Your task to perform on an android device: Search for pizza restaurants on Maps Image 0: 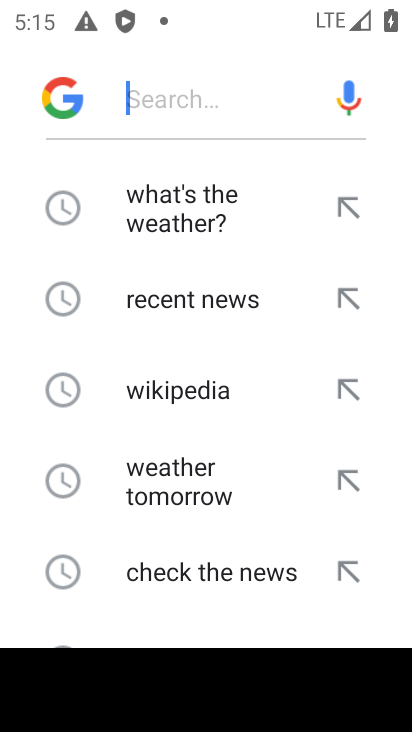
Step 0: press home button
Your task to perform on an android device: Search for pizza restaurants on Maps Image 1: 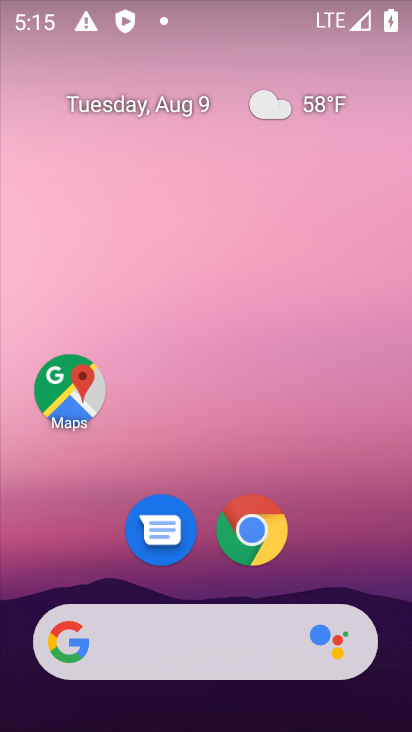
Step 1: click (71, 392)
Your task to perform on an android device: Search for pizza restaurants on Maps Image 2: 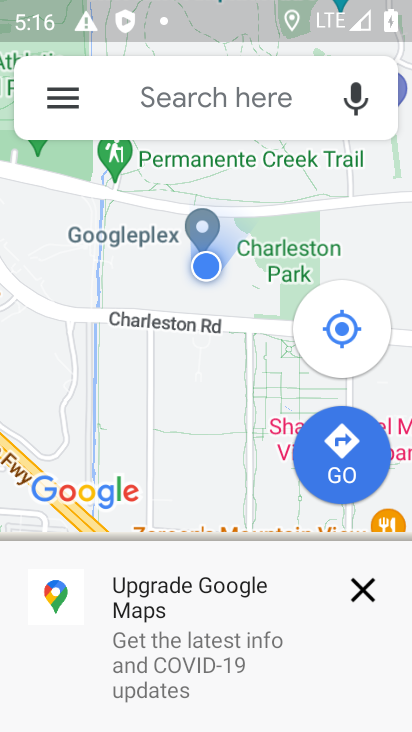
Step 2: click (184, 104)
Your task to perform on an android device: Search for pizza restaurants on Maps Image 3: 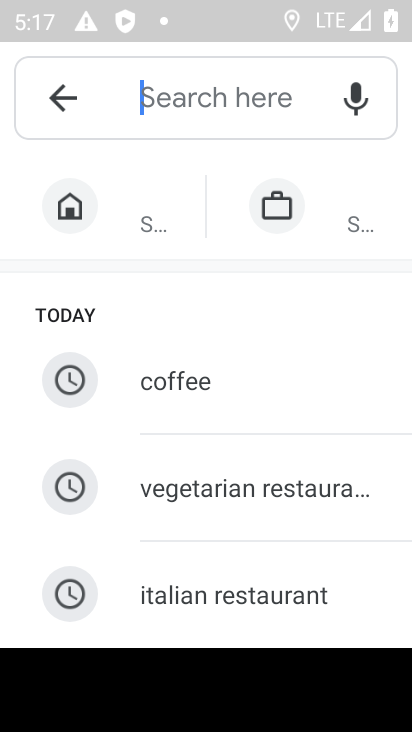
Step 3: drag from (341, 602) to (365, 191)
Your task to perform on an android device: Search for pizza restaurants on Maps Image 4: 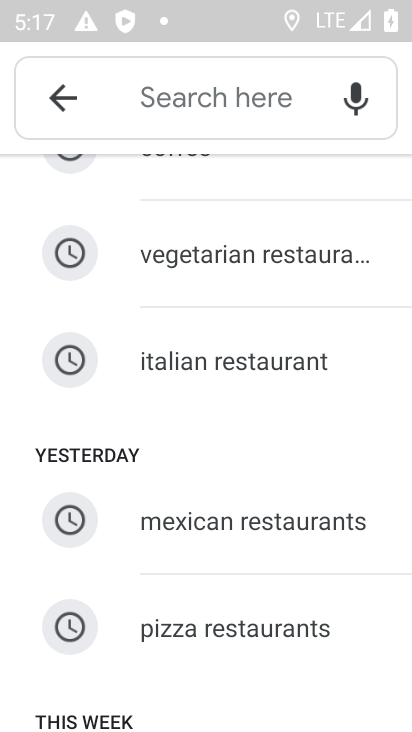
Step 4: click (309, 623)
Your task to perform on an android device: Search for pizza restaurants on Maps Image 5: 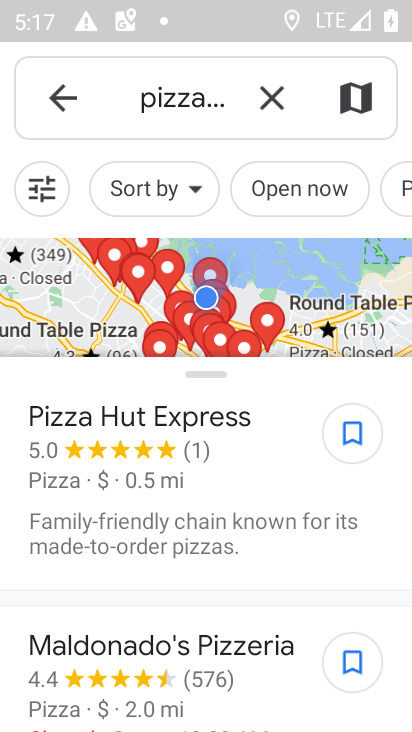
Step 5: task complete